Your task to perform on an android device: Add asus zenbook to the cart on target.com Image 0: 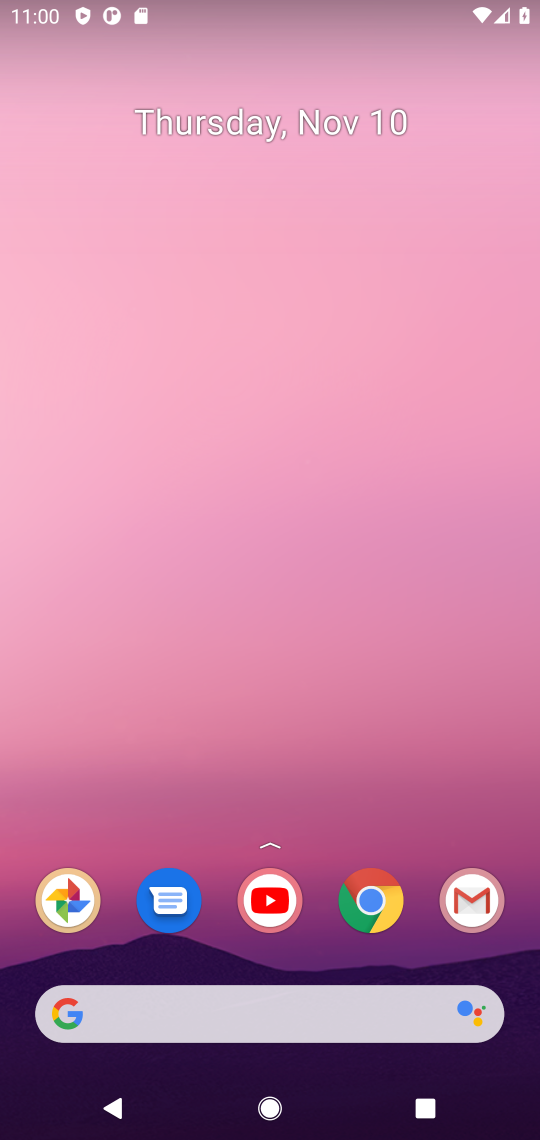
Step 0: click (366, 904)
Your task to perform on an android device: Add asus zenbook to the cart on target.com Image 1: 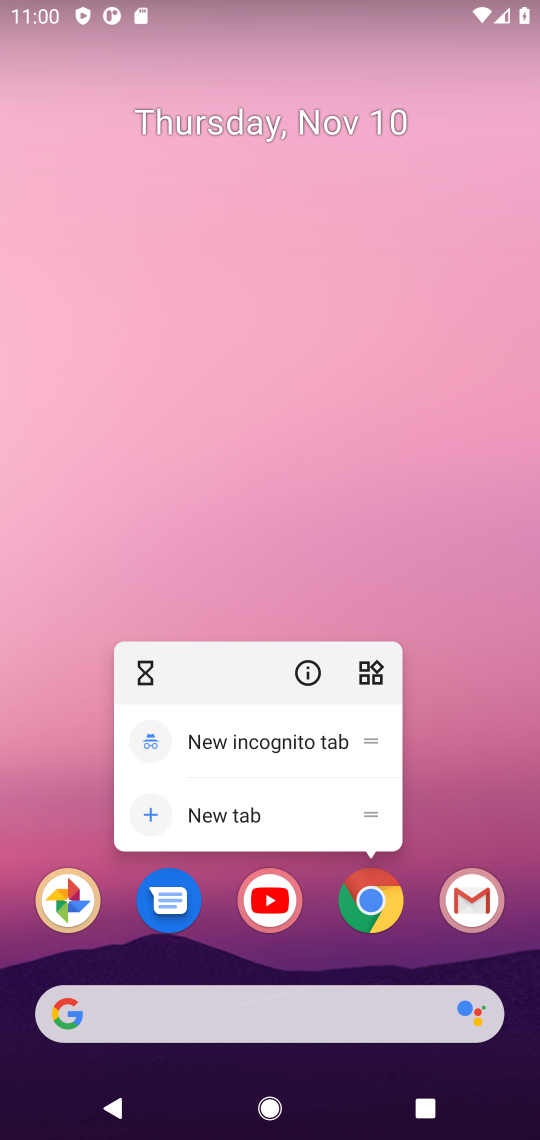
Step 1: click (366, 905)
Your task to perform on an android device: Add asus zenbook to the cart on target.com Image 2: 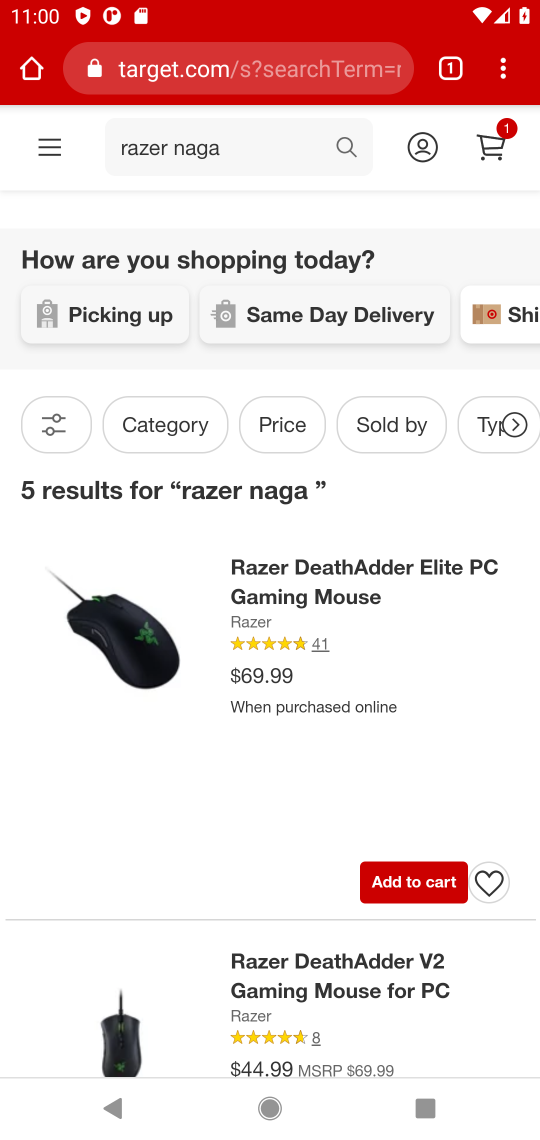
Step 2: click (339, 143)
Your task to perform on an android device: Add asus zenbook to the cart on target.com Image 3: 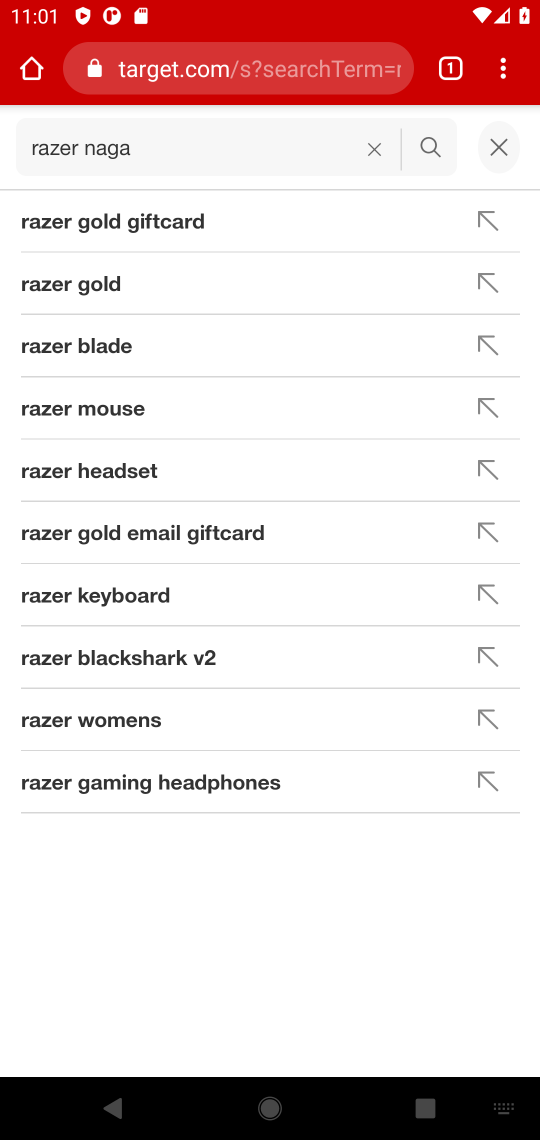
Step 3: click (369, 147)
Your task to perform on an android device: Add asus zenbook to the cart on target.com Image 4: 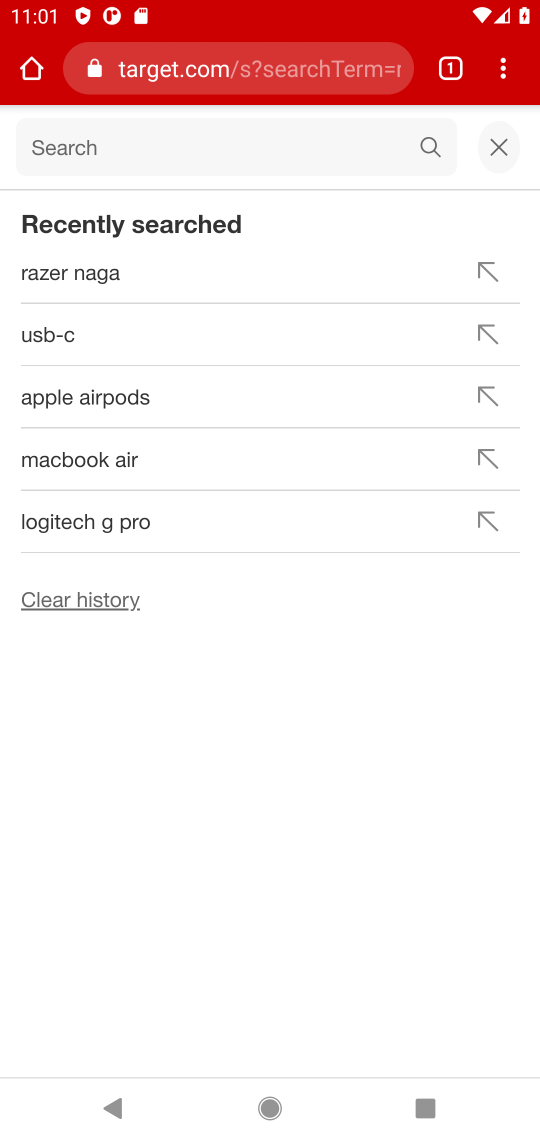
Step 4: click (97, 142)
Your task to perform on an android device: Add asus zenbook to the cart on target.com Image 5: 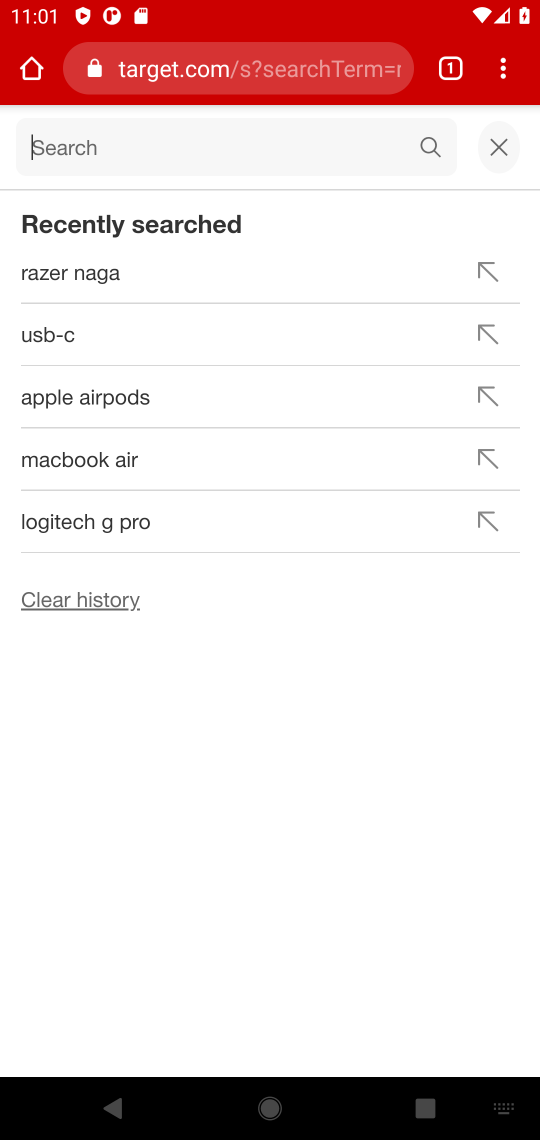
Step 5: type "asus zenbook"
Your task to perform on an android device: Add asus zenbook to the cart on target.com Image 6: 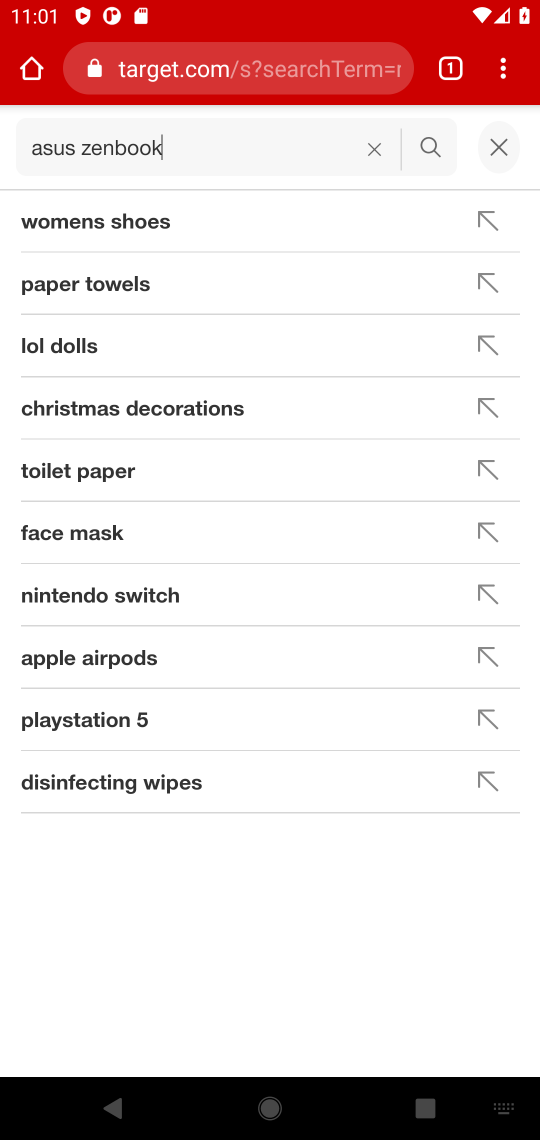
Step 6: press enter
Your task to perform on an android device: Add asus zenbook to the cart on target.com Image 7: 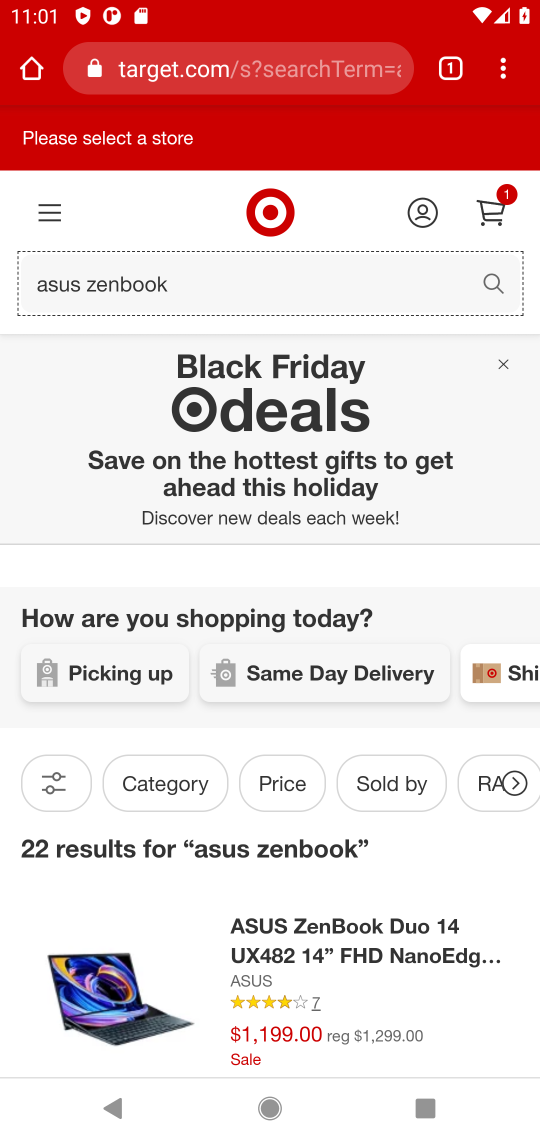
Step 7: drag from (231, 897) to (383, 468)
Your task to perform on an android device: Add asus zenbook to the cart on target.com Image 8: 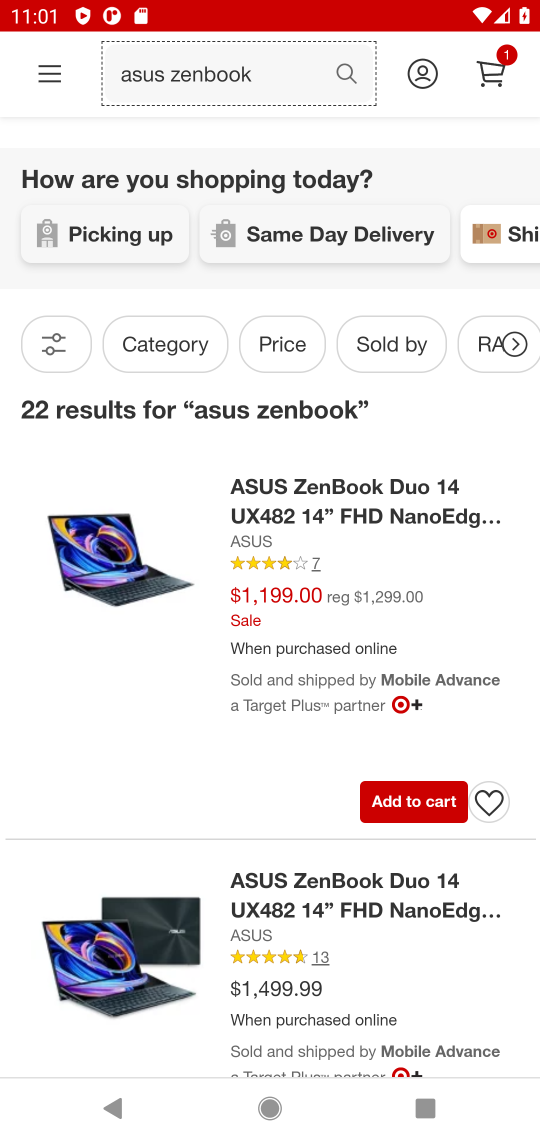
Step 8: click (406, 800)
Your task to perform on an android device: Add asus zenbook to the cart on target.com Image 9: 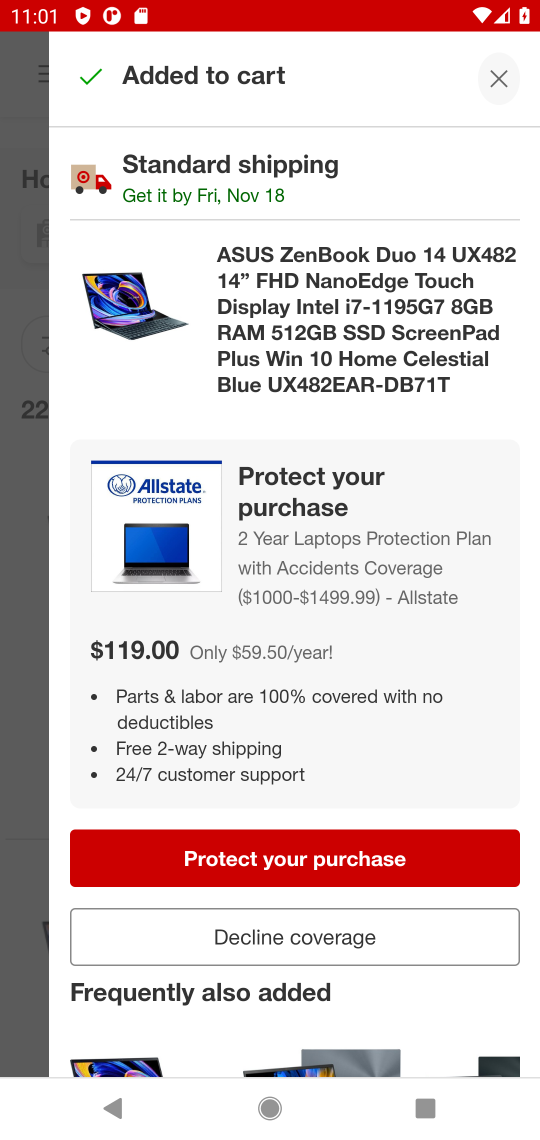
Step 9: click (269, 936)
Your task to perform on an android device: Add asus zenbook to the cart on target.com Image 10: 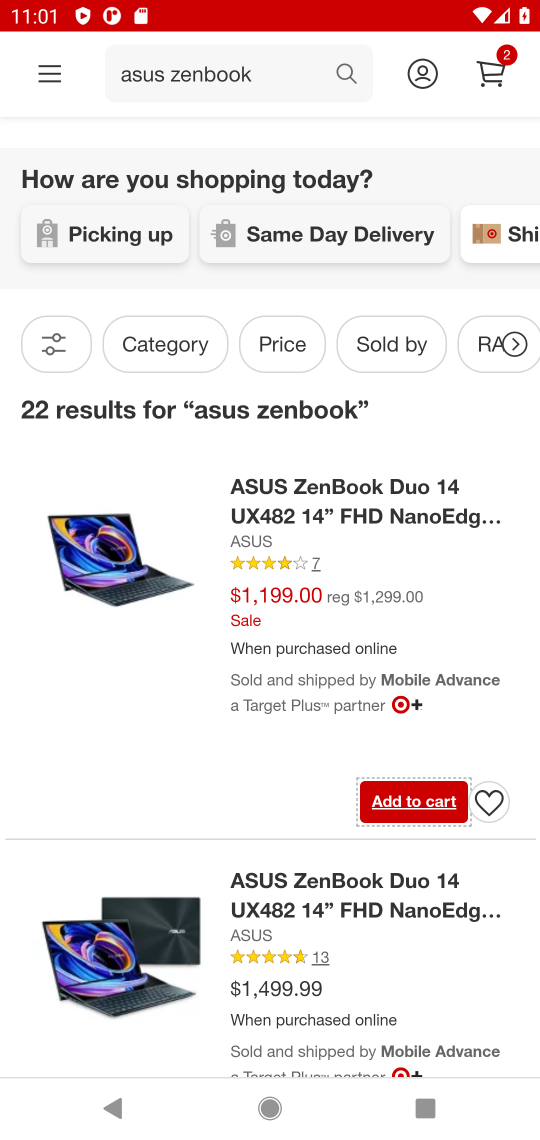
Step 10: click (498, 68)
Your task to perform on an android device: Add asus zenbook to the cart on target.com Image 11: 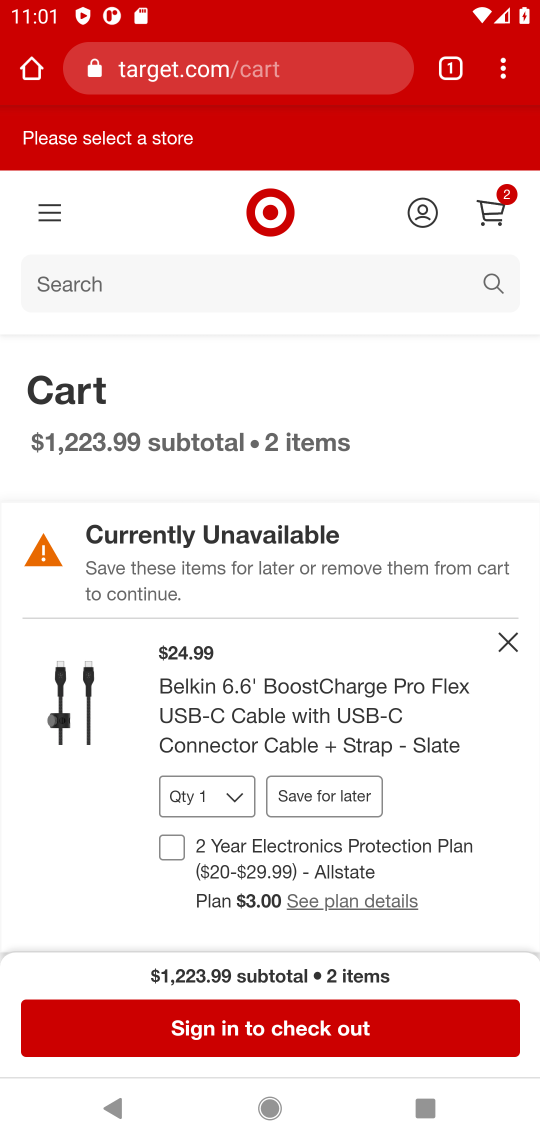
Step 11: click (506, 639)
Your task to perform on an android device: Add asus zenbook to the cart on target.com Image 12: 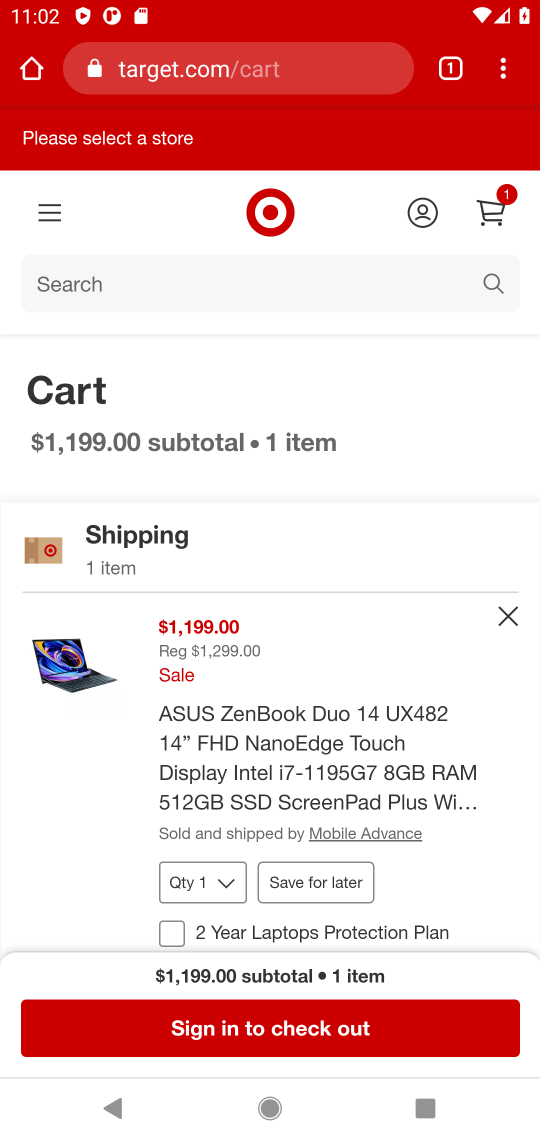
Step 12: task complete